Your task to perform on an android device: all mails in gmail Image 0: 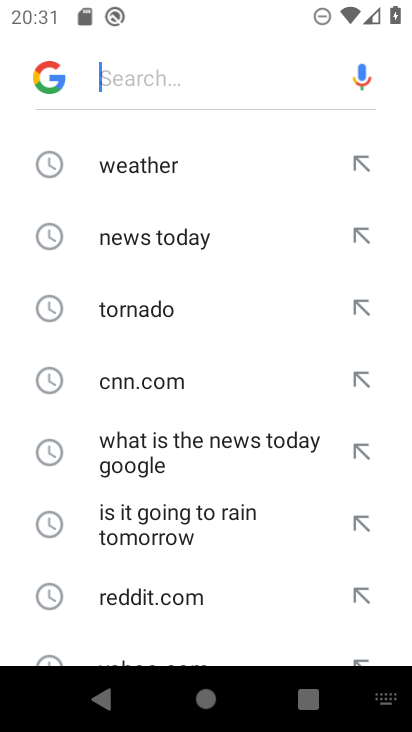
Step 0: press home button
Your task to perform on an android device: all mails in gmail Image 1: 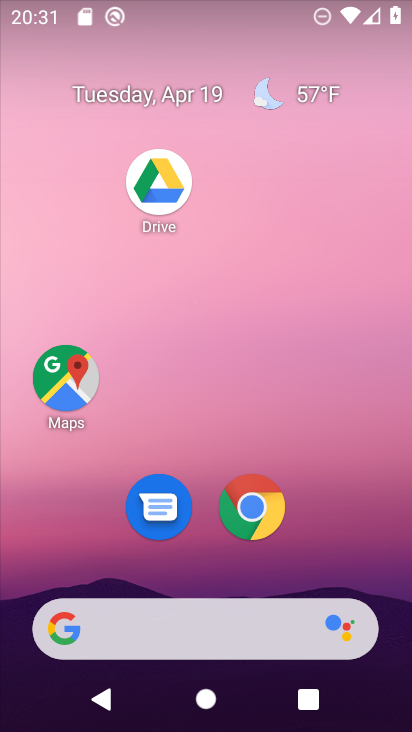
Step 1: drag from (318, 447) to (313, 133)
Your task to perform on an android device: all mails in gmail Image 2: 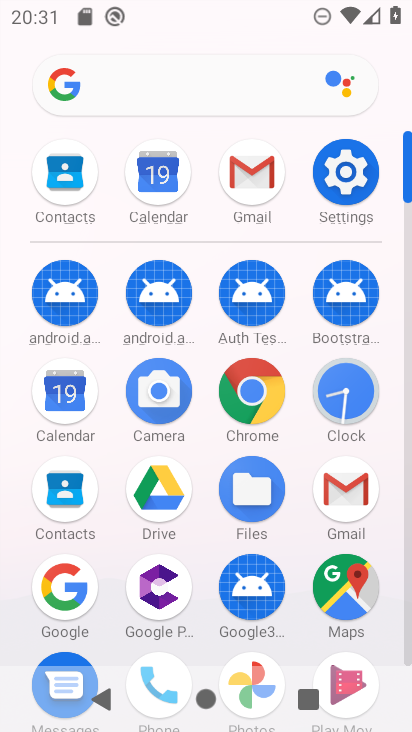
Step 2: click (254, 185)
Your task to perform on an android device: all mails in gmail Image 3: 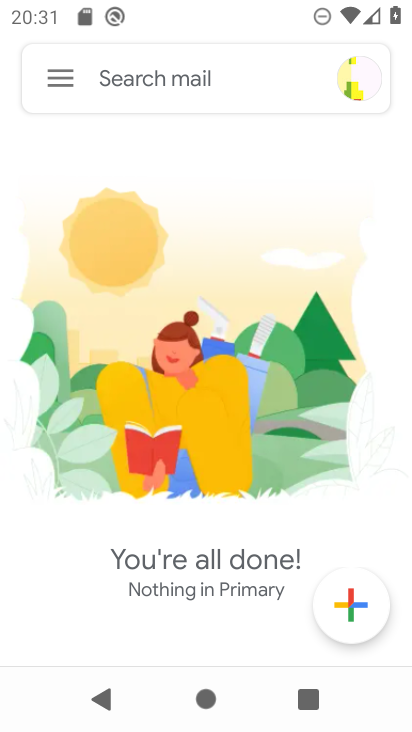
Step 3: click (57, 68)
Your task to perform on an android device: all mails in gmail Image 4: 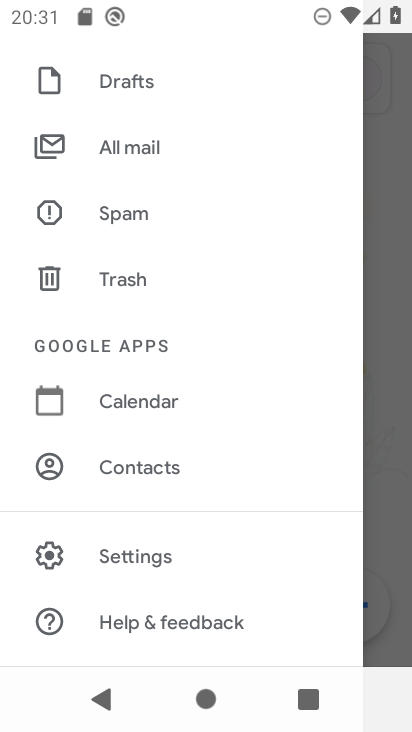
Step 4: click (144, 140)
Your task to perform on an android device: all mails in gmail Image 5: 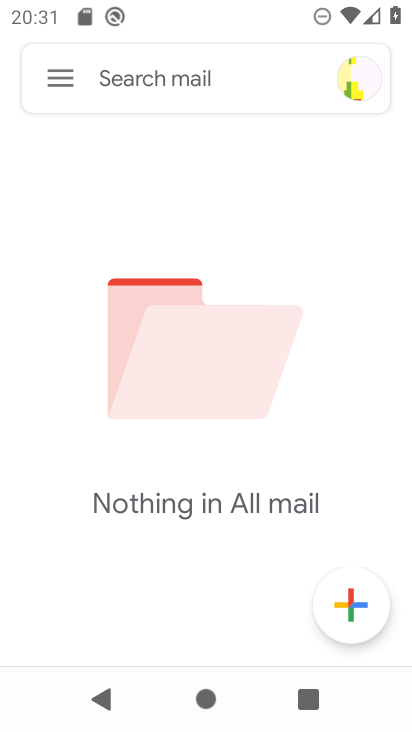
Step 5: task complete